Your task to perform on an android device: Add "jbl flip 4" to the cart on amazon, then select checkout. Image 0: 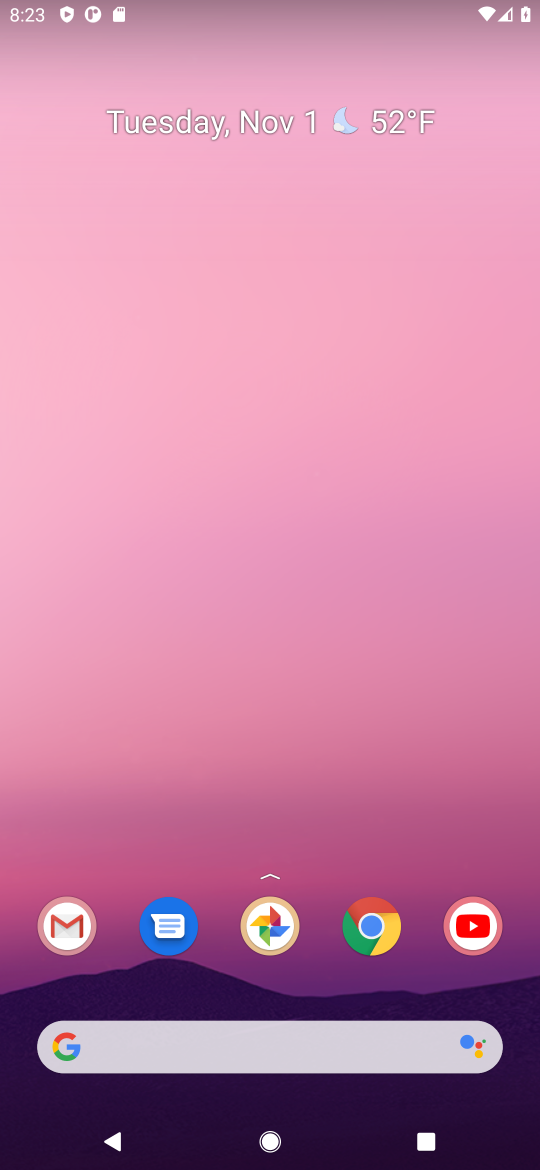
Step 0: press home button
Your task to perform on an android device: Add "jbl flip 4" to the cart on amazon, then select checkout. Image 1: 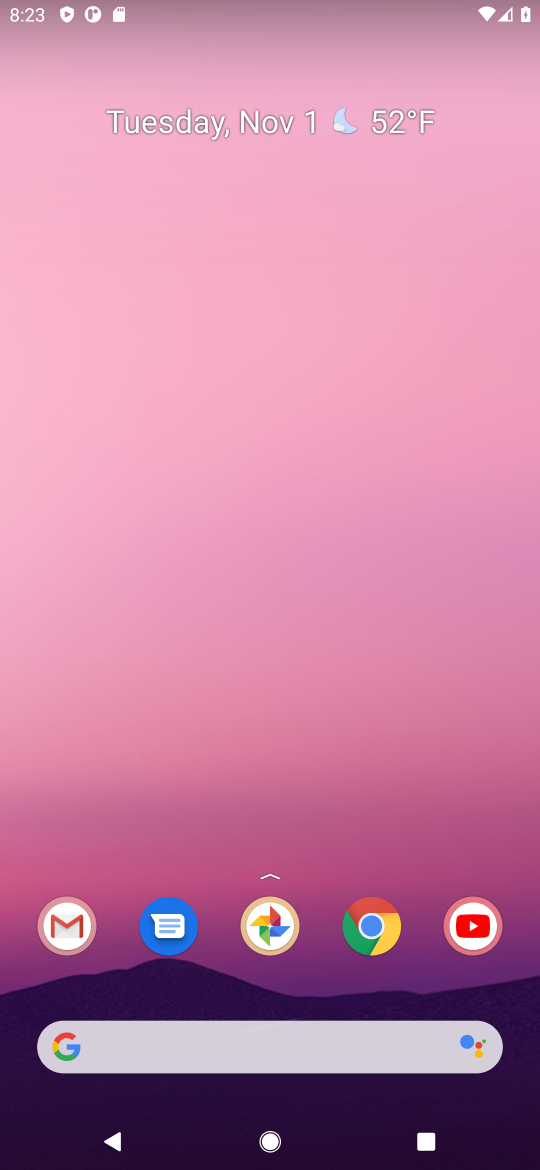
Step 1: click (385, 933)
Your task to perform on an android device: Add "jbl flip 4" to the cart on amazon, then select checkout. Image 2: 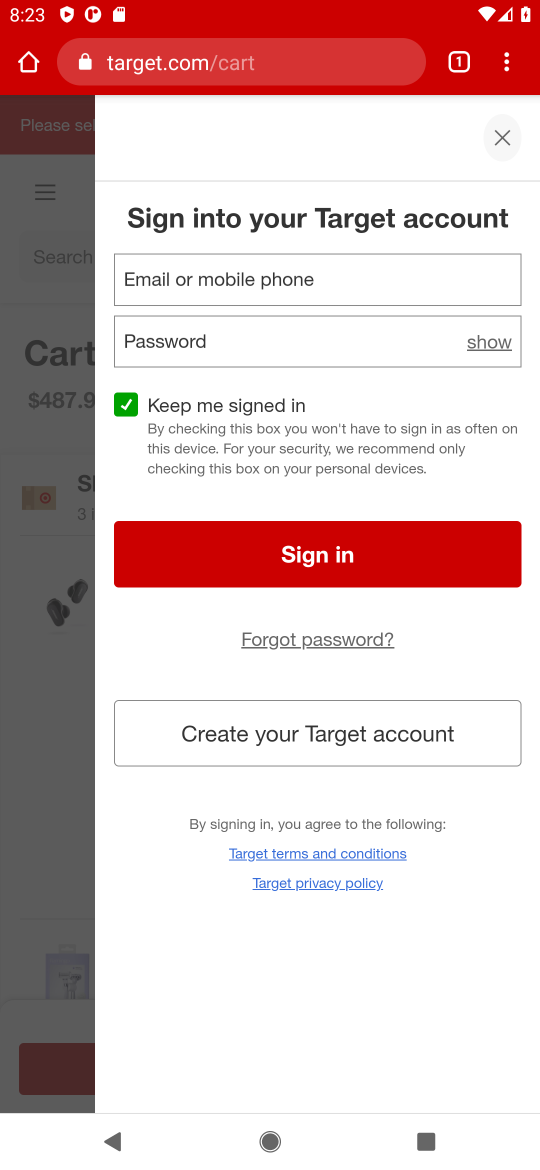
Step 2: click (237, 57)
Your task to perform on an android device: Add "jbl flip 4" to the cart on amazon, then select checkout. Image 3: 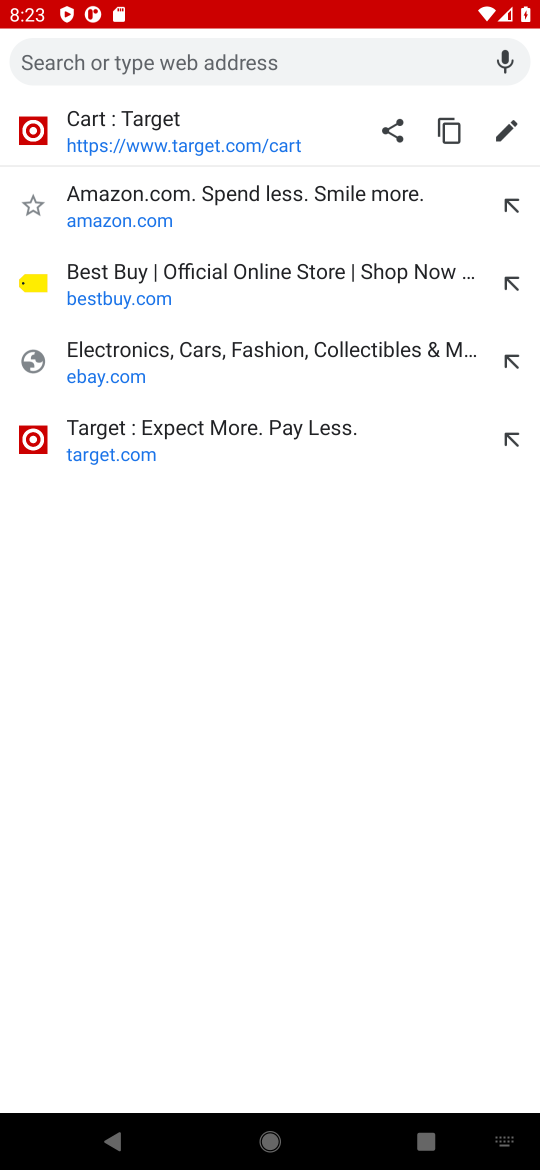
Step 3: type "jbl flip 4"
Your task to perform on an android device: Add "jbl flip 4" to the cart on amazon, then select checkout. Image 4: 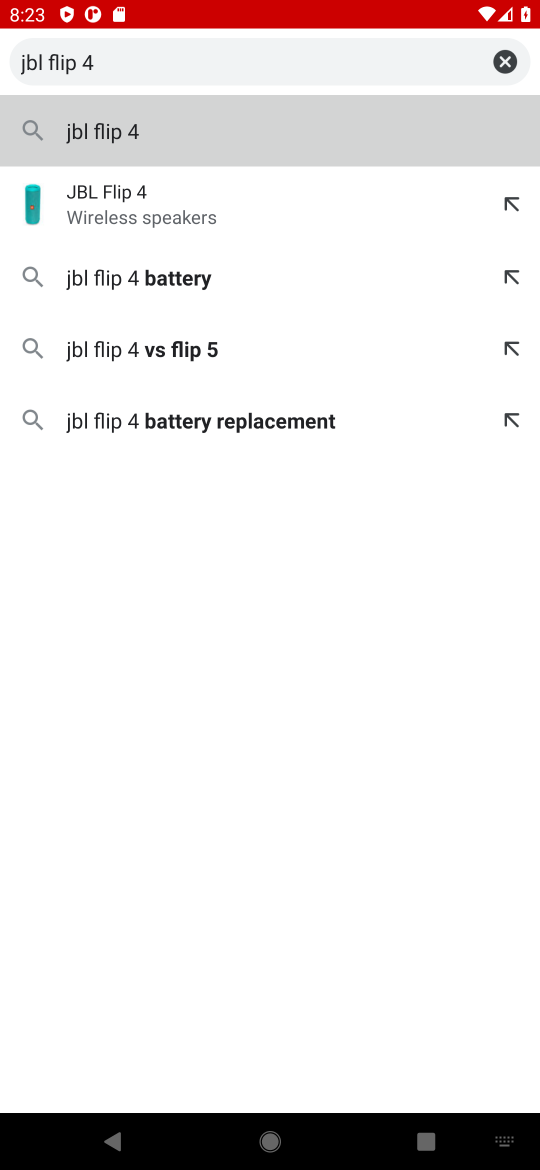
Step 4: type ""
Your task to perform on an android device: Add "jbl flip 4" to the cart on amazon, then select checkout. Image 5: 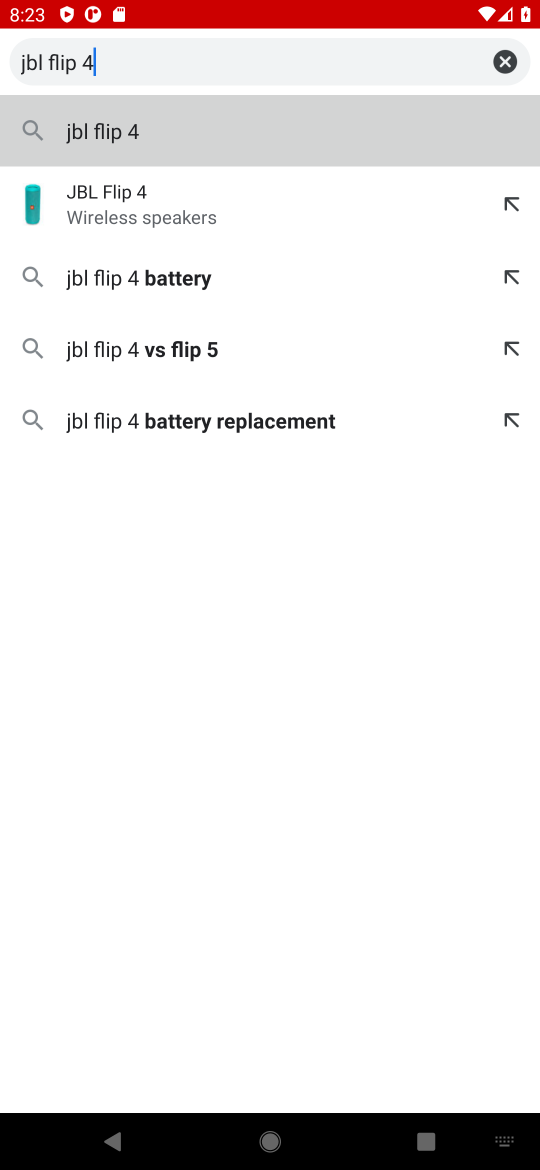
Step 5: click (505, 50)
Your task to perform on an android device: Add "jbl flip 4" to the cart on amazon, then select checkout. Image 6: 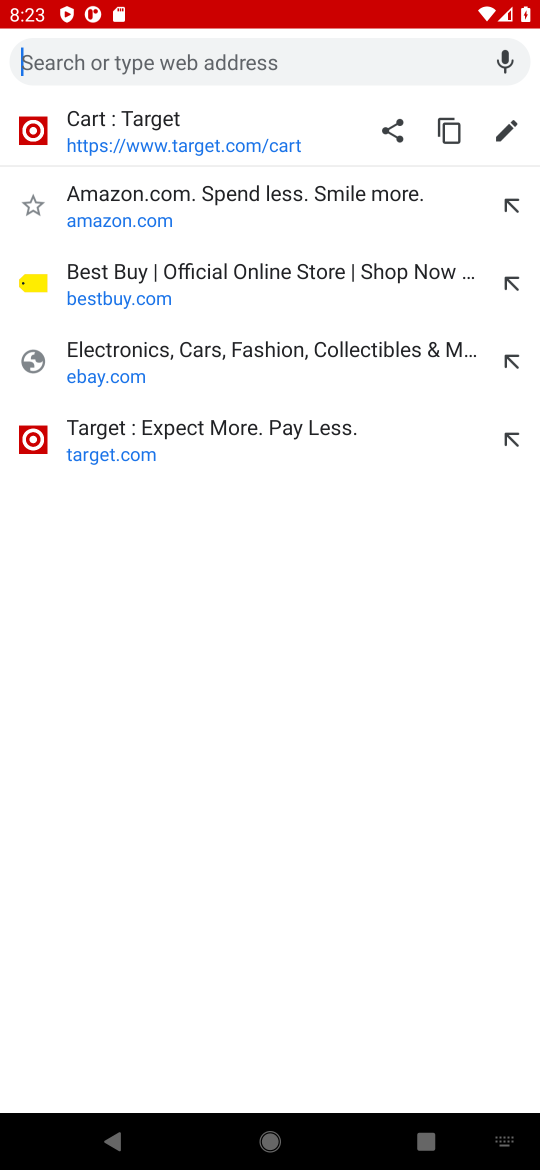
Step 6: type "amazon.com"
Your task to perform on an android device: Add "jbl flip 4" to the cart on amazon, then select checkout. Image 7: 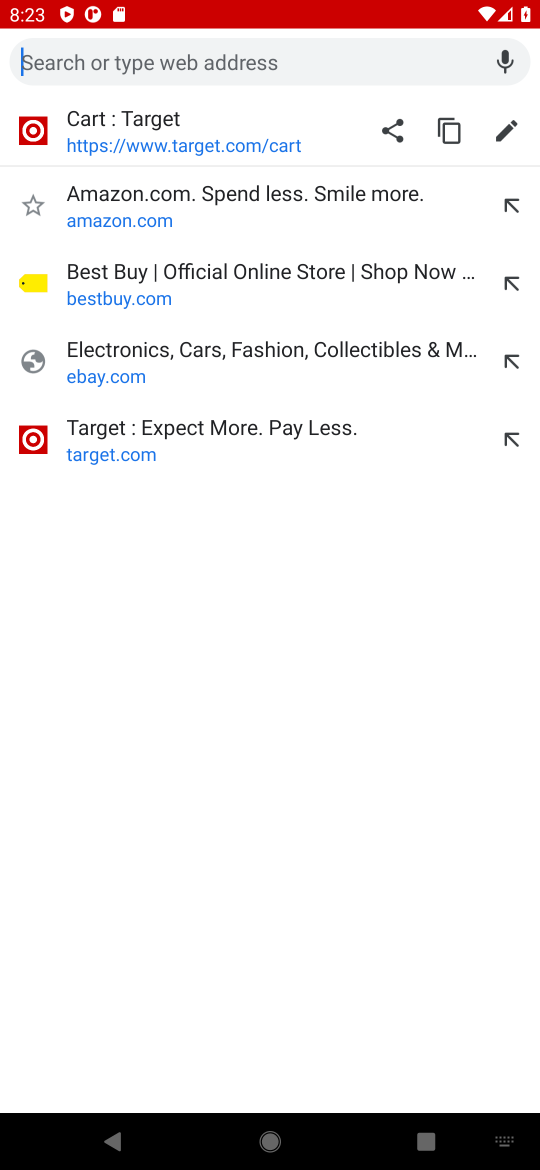
Step 7: click (114, 199)
Your task to perform on an android device: Add "jbl flip 4" to the cart on amazon, then select checkout. Image 8: 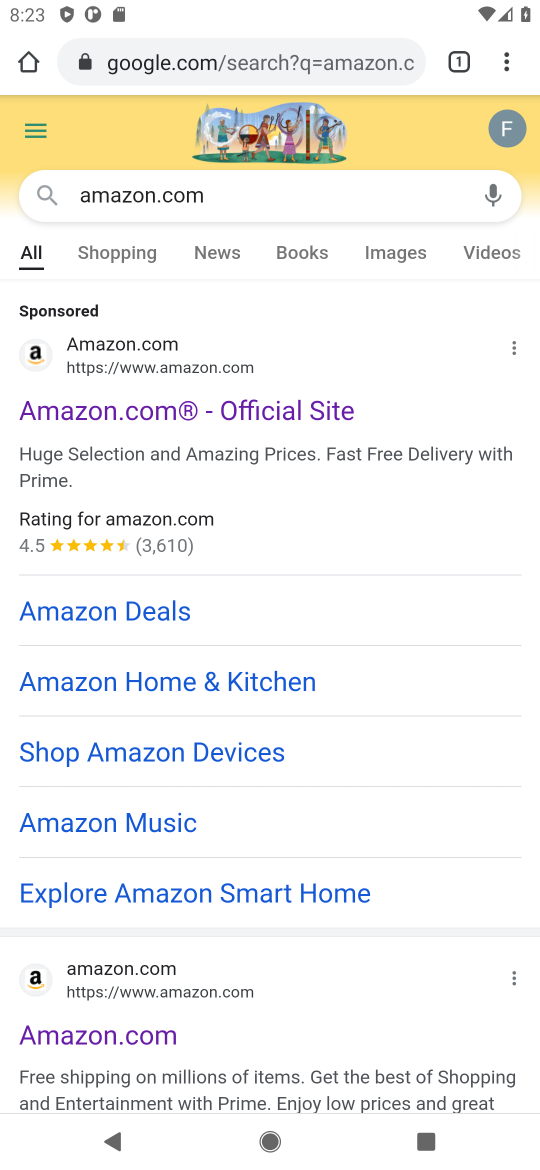
Step 8: click (163, 417)
Your task to perform on an android device: Add "jbl flip 4" to the cart on amazon, then select checkout. Image 9: 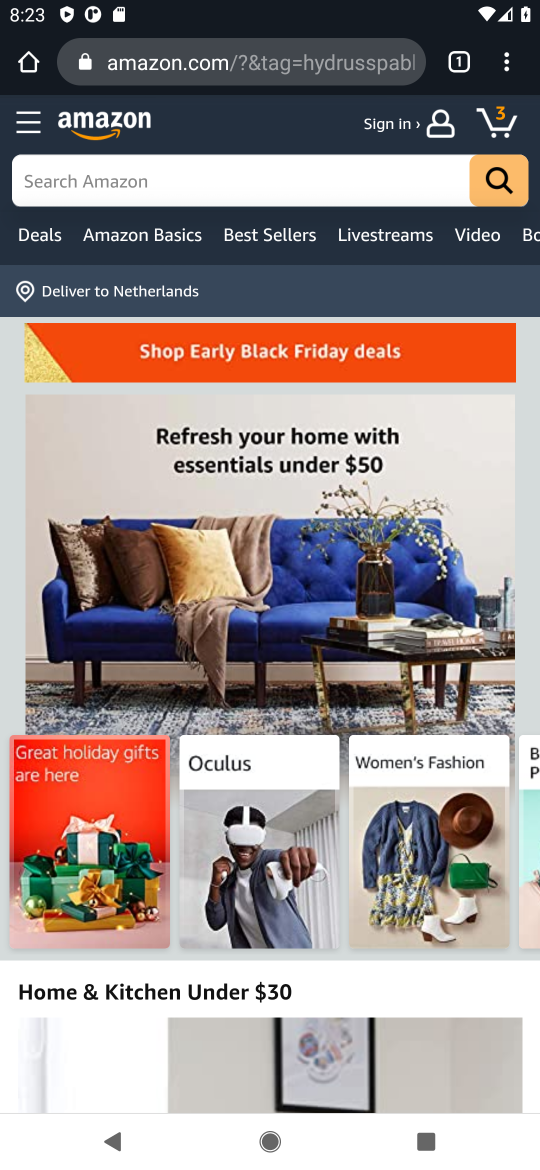
Step 9: click (126, 189)
Your task to perform on an android device: Add "jbl flip 4" to the cart on amazon, then select checkout. Image 10: 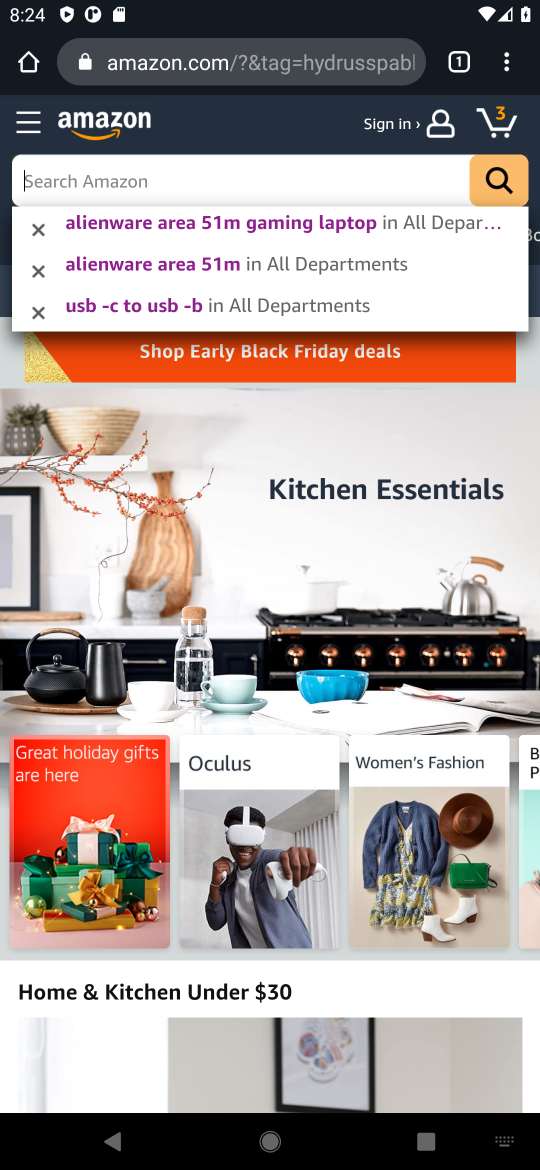
Step 10: type "jbl flip 4"
Your task to perform on an android device: Add "jbl flip 4" to the cart on amazon, then select checkout. Image 11: 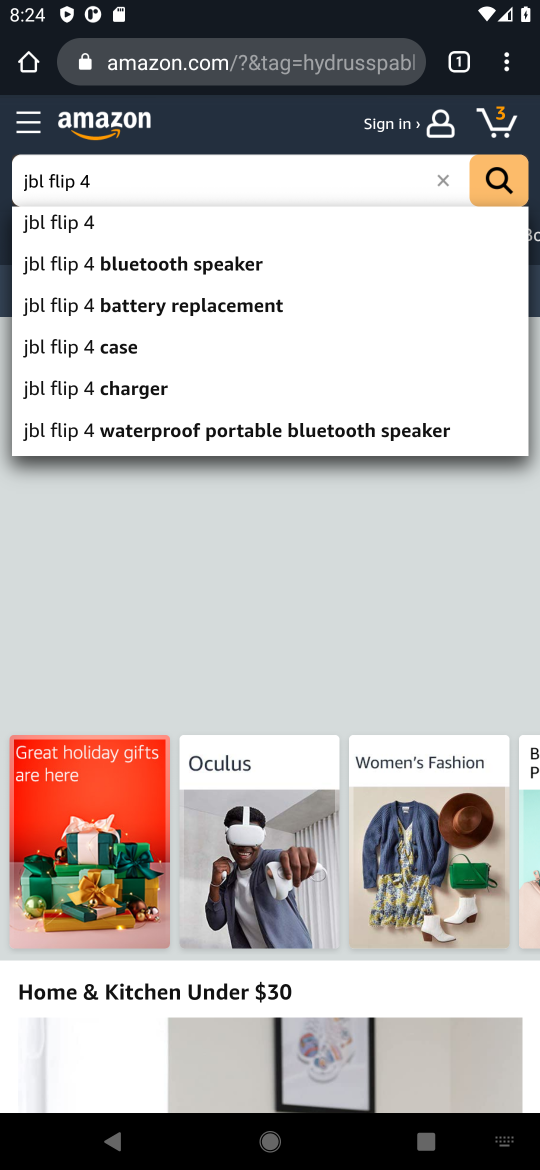
Step 11: click (62, 215)
Your task to perform on an android device: Add "jbl flip 4" to the cart on amazon, then select checkout. Image 12: 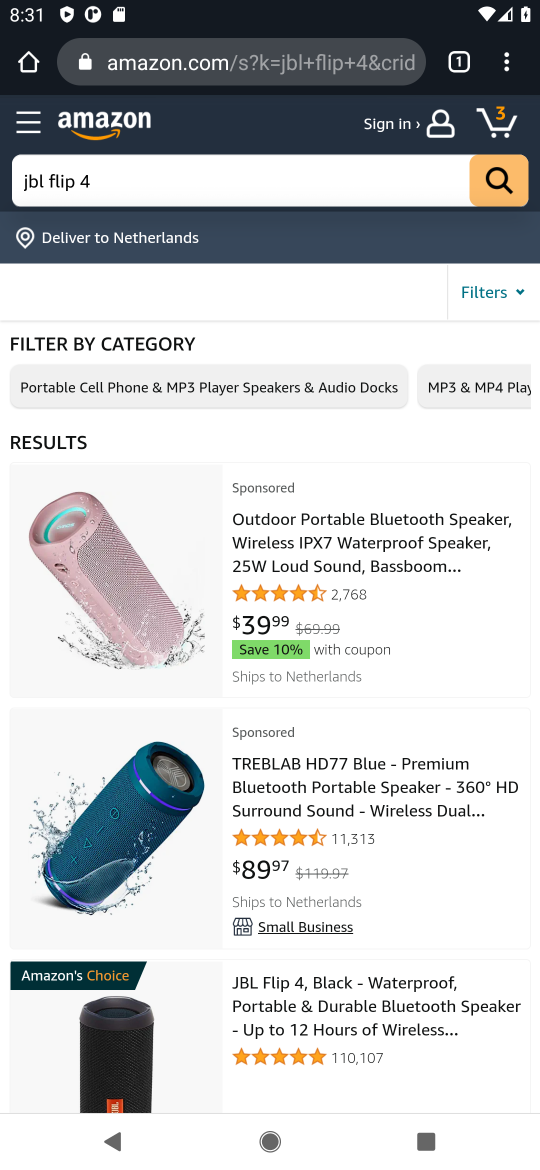
Step 12: click (269, 565)
Your task to perform on an android device: Add "jbl flip 4" to the cart on amazon, then select checkout. Image 13: 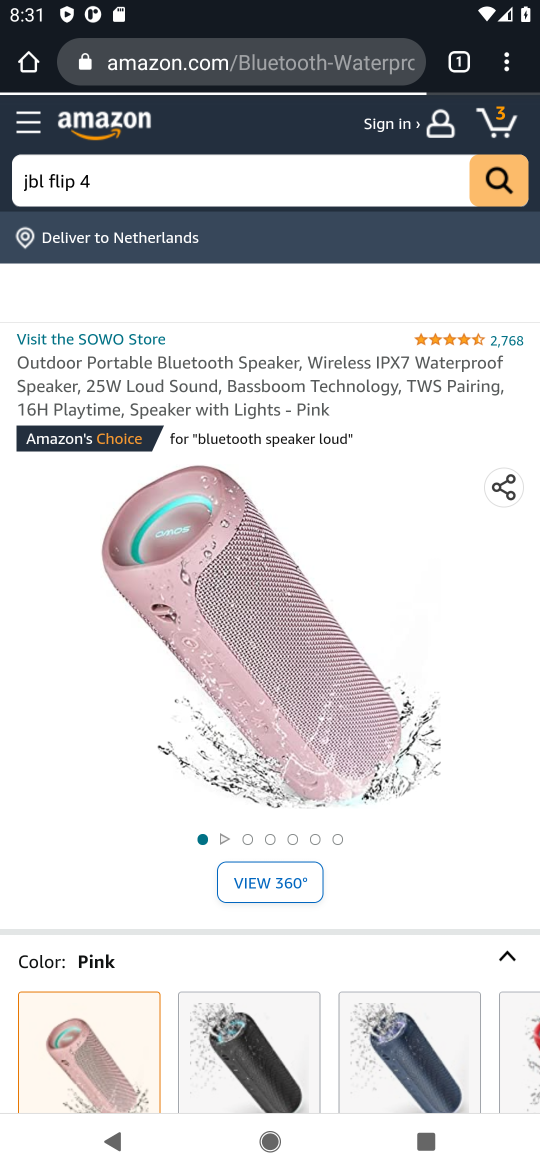
Step 13: drag from (202, 877) to (244, 443)
Your task to perform on an android device: Add "jbl flip 4" to the cart on amazon, then select checkout. Image 14: 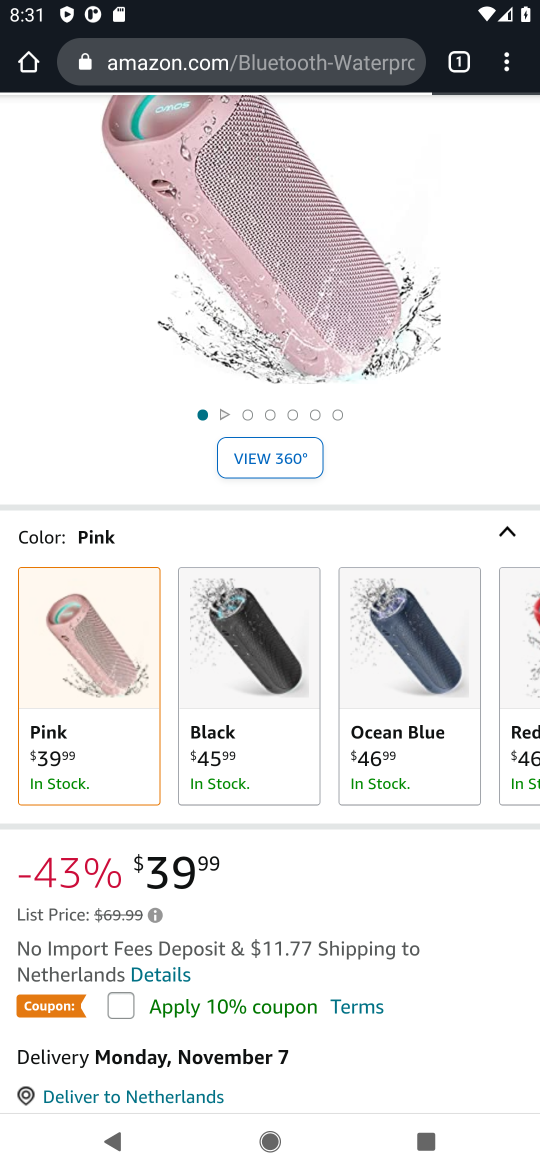
Step 14: drag from (380, 872) to (326, 124)
Your task to perform on an android device: Add "jbl flip 4" to the cart on amazon, then select checkout. Image 15: 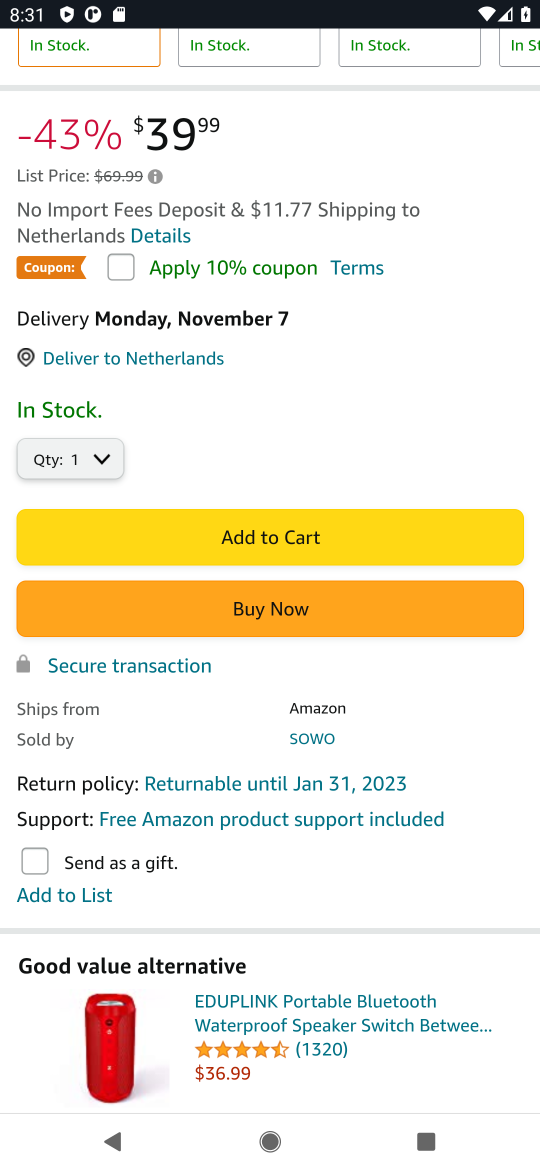
Step 15: click (237, 556)
Your task to perform on an android device: Add "jbl flip 4" to the cart on amazon, then select checkout. Image 16: 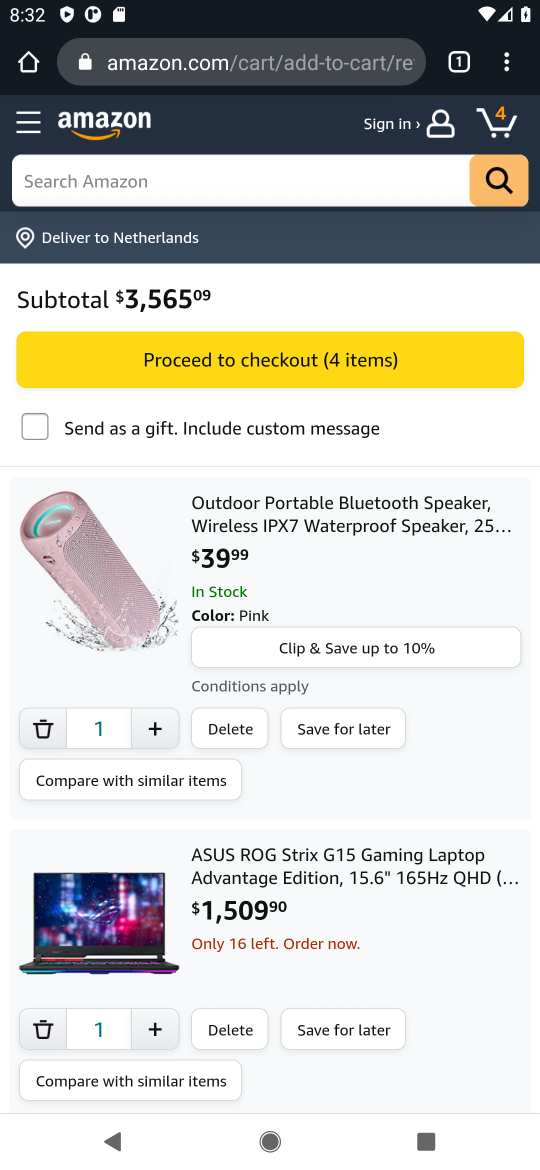
Step 16: click (288, 359)
Your task to perform on an android device: Add "jbl flip 4" to the cart on amazon, then select checkout. Image 17: 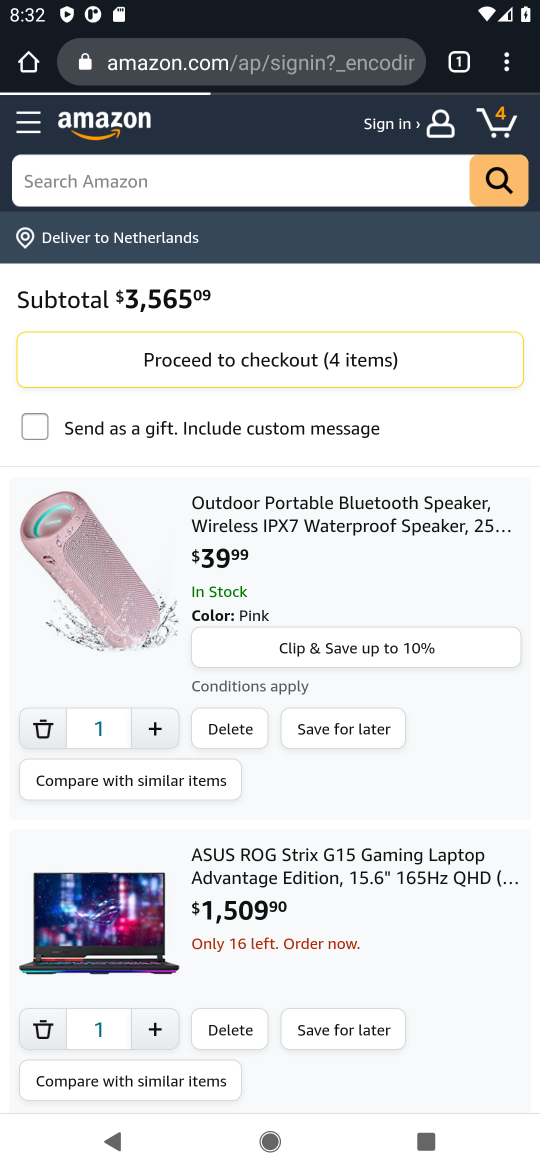
Step 17: task complete